Your task to perform on an android device: Go to accessibility settings Image 0: 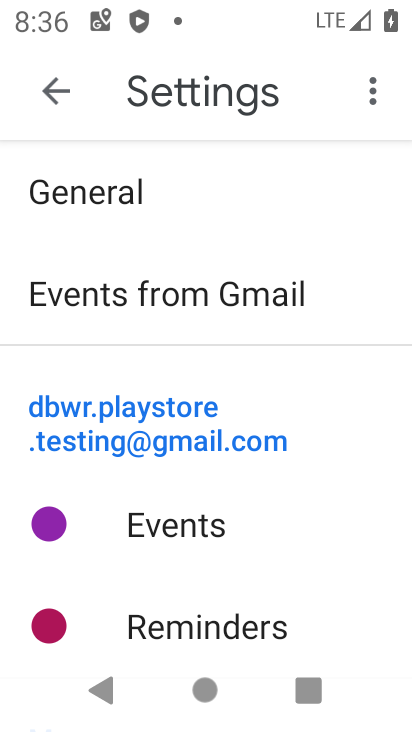
Step 0: press home button
Your task to perform on an android device: Go to accessibility settings Image 1: 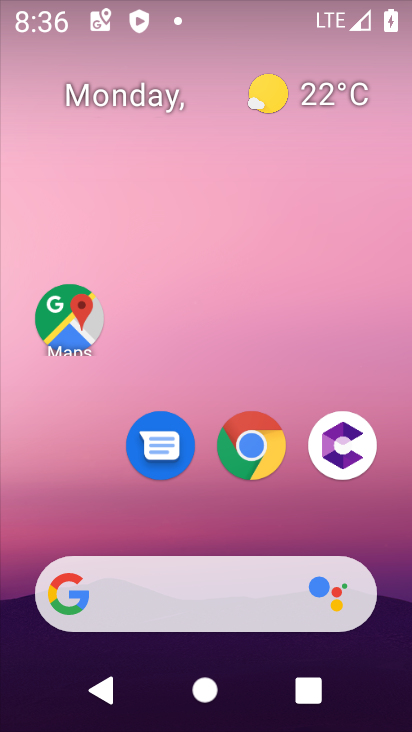
Step 1: drag from (241, 333) to (172, 47)
Your task to perform on an android device: Go to accessibility settings Image 2: 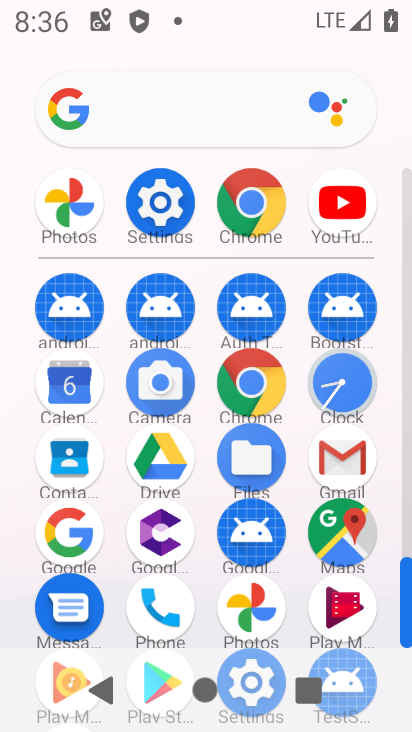
Step 2: click (193, 199)
Your task to perform on an android device: Go to accessibility settings Image 3: 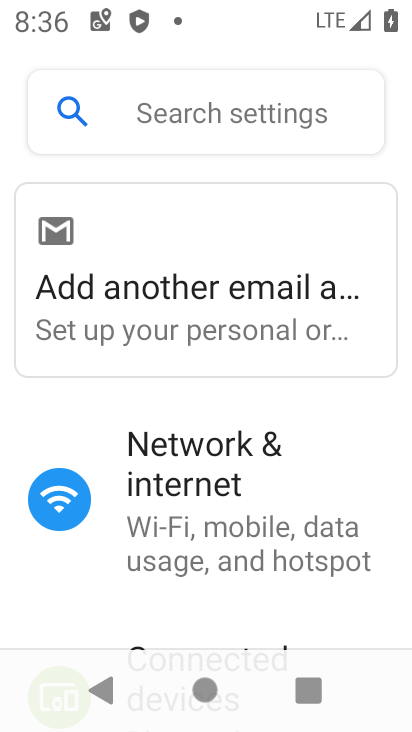
Step 3: drag from (68, 602) to (66, 129)
Your task to perform on an android device: Go to accessibility settings Image 4: 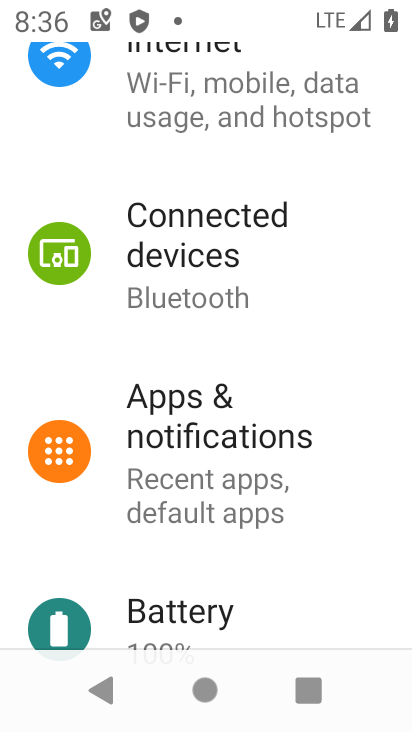
Step 4: drag from (88, 551) to (71, 202)
Your task to perform on an android device: Go to accessibility settings Image 5: 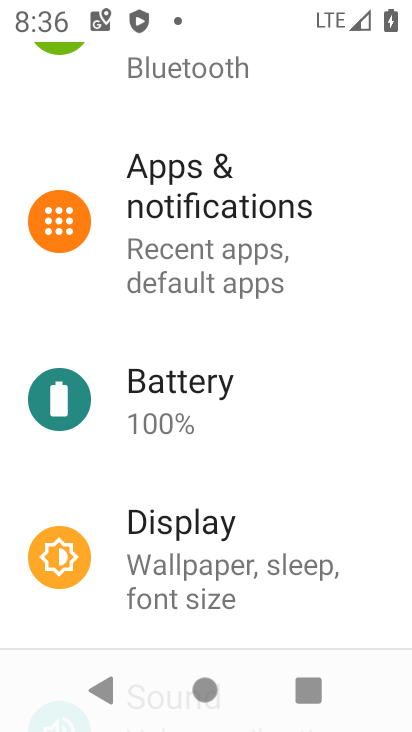
Step 5: drag from (80, 623) to (76, 204)
Your task to perform on an android device: Go to accessibility settings Image 6: 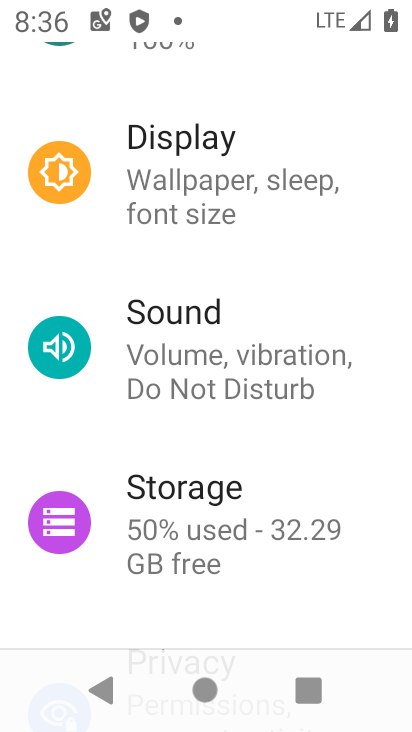
Step 6: drag from (71, 591) to (78, 158)
Your task to perform on an android device: Go to accessibility settings Image 7: 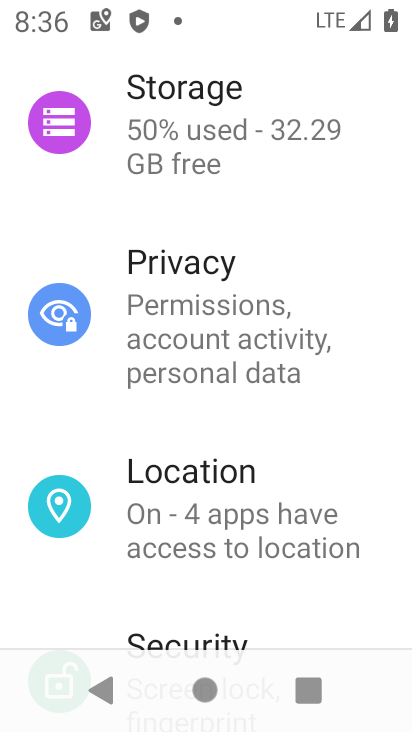
Step 7: drag from (42, 629) to (52, 286)
Your task to perform on an android device: Go to accessibility settings Image 8: 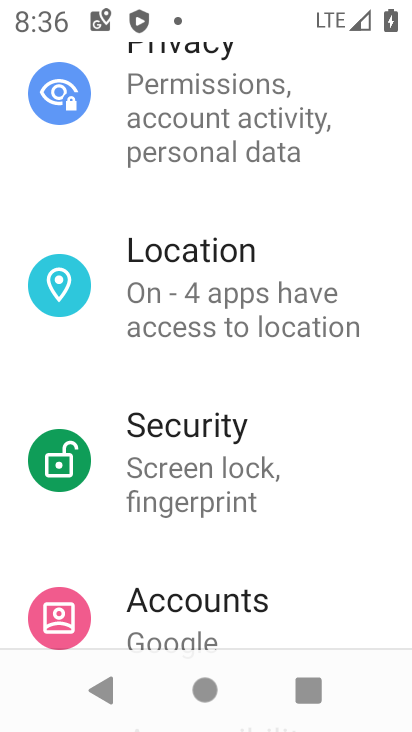
Step 8: drag from (22, 561) to (24, 241)
Your task to perform on an android device: Go to accessibility settings Image 9: 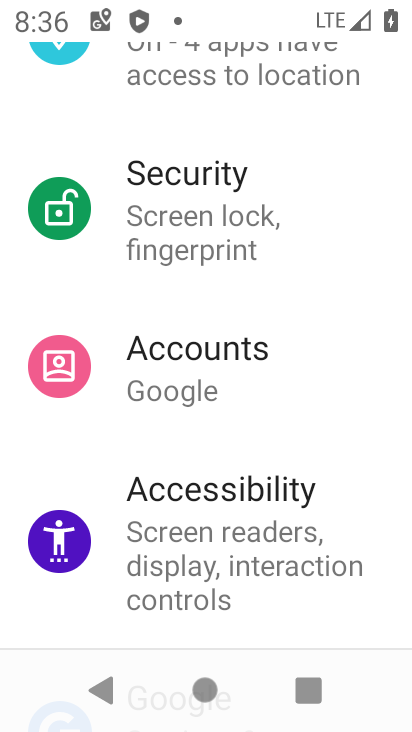
Step 9: click (209, 553)
Your task to perform on an android device: Go to accessibility settings Image 10: 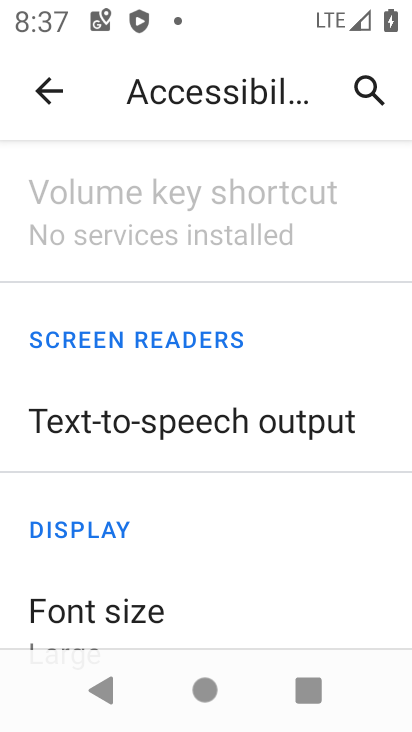
Step 10: task complete